Your task to perform on an android device: Open the calendar app, open the side menu, and click the "Day" option Image 0: 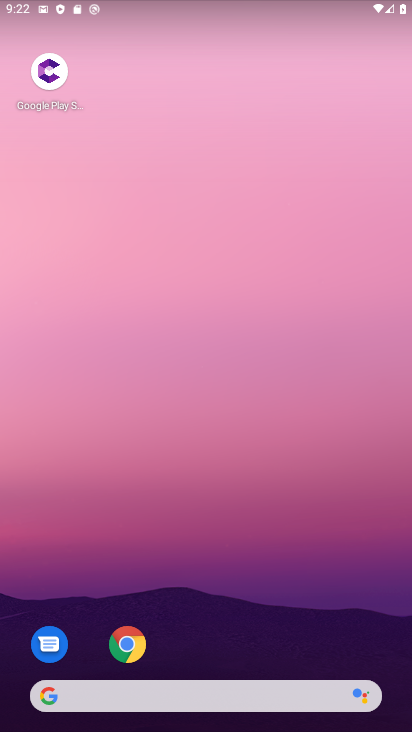
Step 0: drag from (316, 612) to (339, 66)
Your task to perform on an android device: Open the calendar app, open the side menu, and click the "Day" option Image 1: 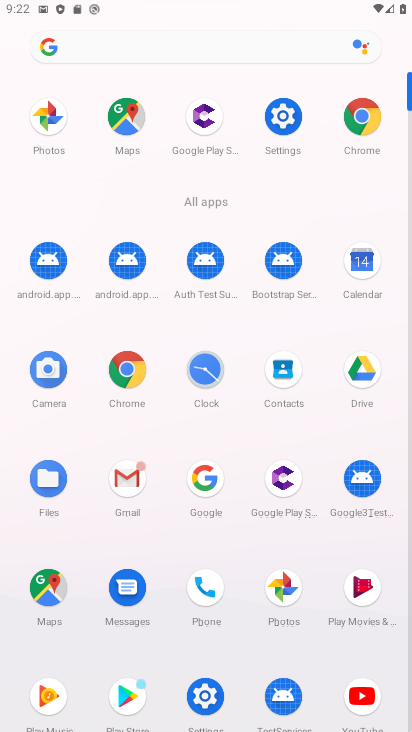
Step 1: click (361, 255)
Your task to perform on an android device: Open the calendar app, open the side menu, and click the "Day" option Image 2: 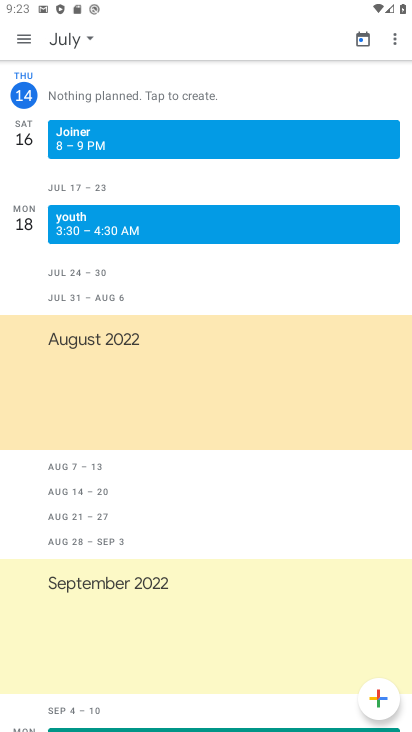
Step 2: click (19, 33)
Your task to perform on an android device: Open the calendar app, open the side menu, and click the "Day" option Image 3: 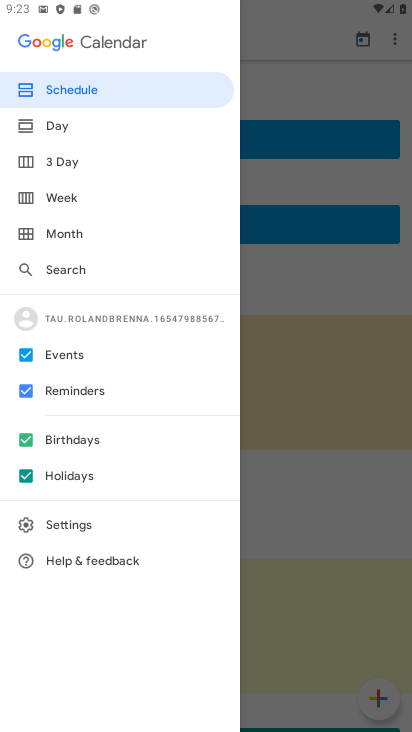
Step 3: click (61, 125)
Your task to perform on an android device: Open the calendar app, open the side menu, and click the "Day" option Image 4: 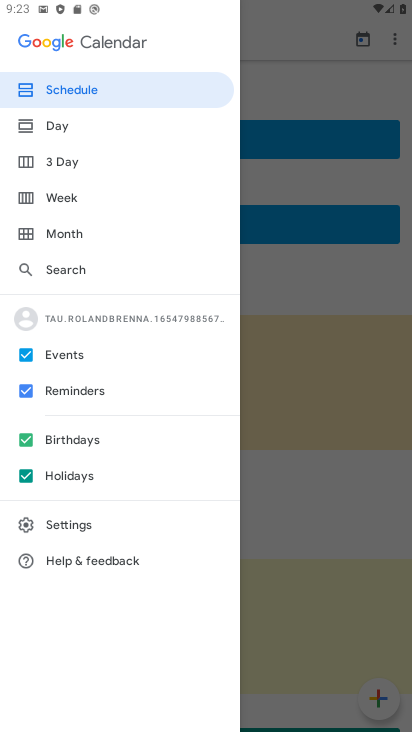
Step 4: click (85, 125)
Your task to perform on an android device: Open the calendar app, open the side menu, and click the "Day" option Image 5: 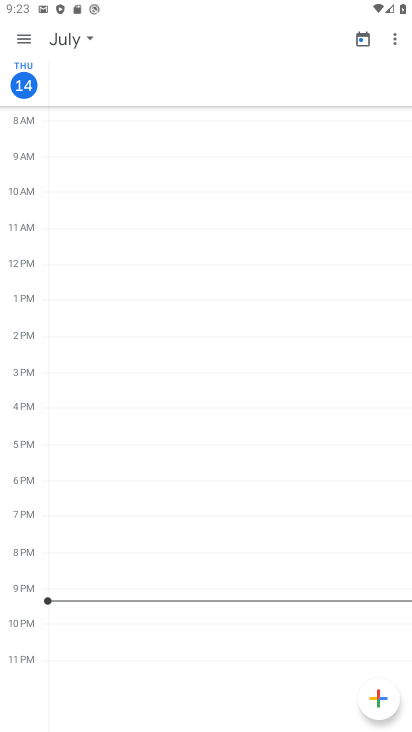
Step 5: task complete